Your task to perform on an android device: see sites visited before in the chrome app Image 0: 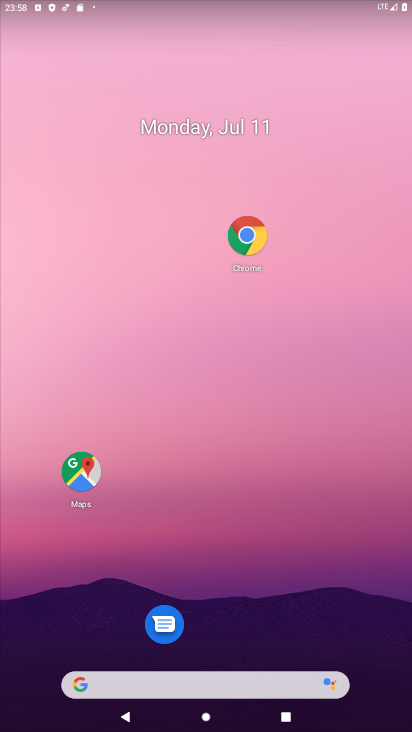
Step 0: click (219, 244)
Your task to perform on an android device: see sites visited before in the chrome app Image 1: 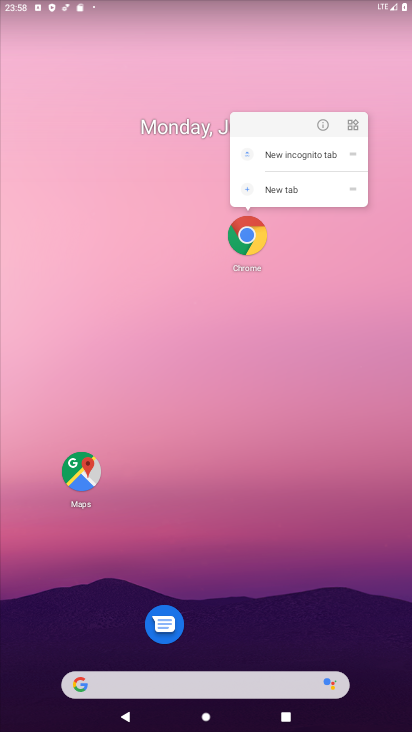
Step 1: click (265, 227)
Your task to perform on an android device: see sites visited before in the chrome app Image 2: 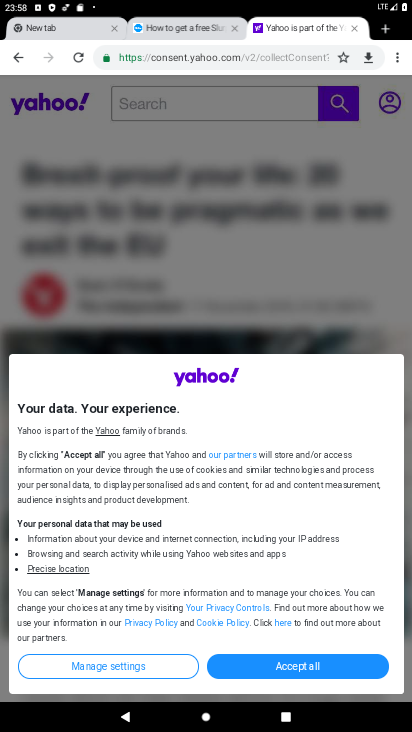
Step 2: click (391, 51)
Your task to perform on an android device: see sites visited before in the chrome app Image 3: 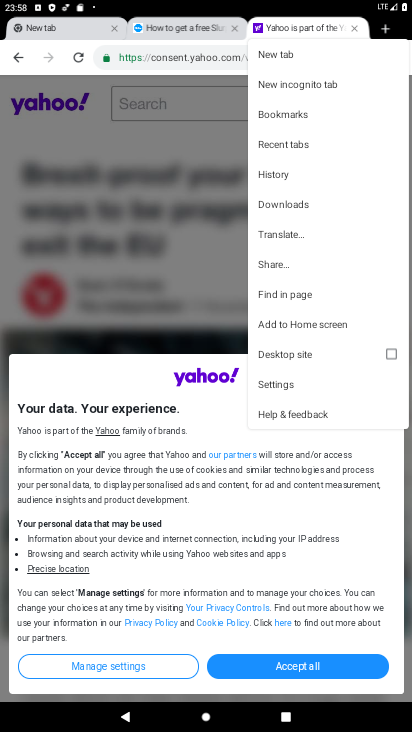
Step 3: click (317, 154)
Your task to perform on an android device: see sites visited before in the chrome app Image 4: 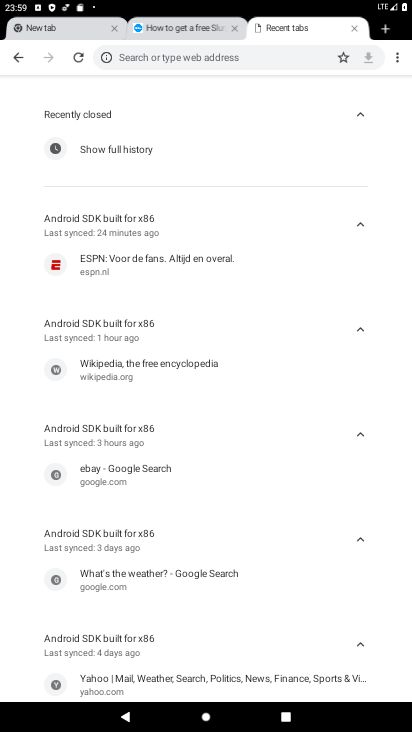
Step 4: task complete